Your task to perform on an android device: find which apps use the phone's location Image 0: 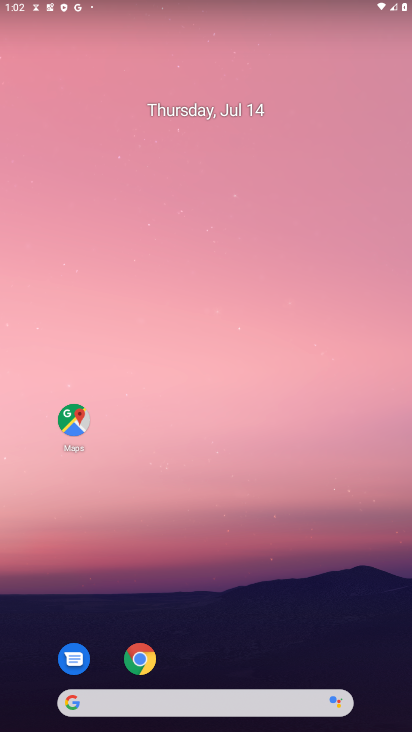
Step 0: drag from (22, 715) to (122, 330)
Your task to perform on an android device: find which apps use the phone's location Image 1: 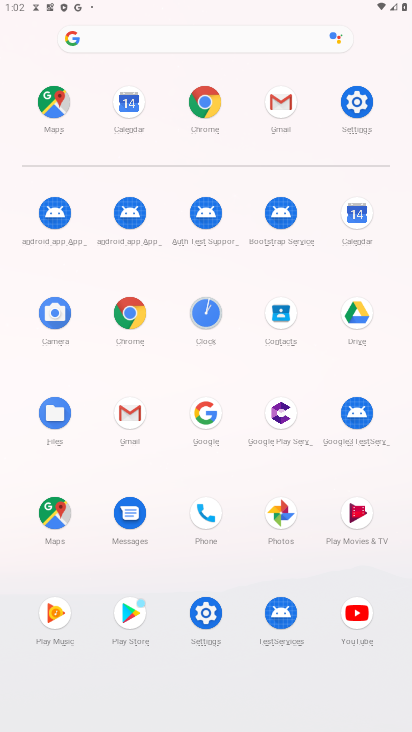
Step 1: click (210, 615)
Your task to perform on an android device: find which apps use the phone's location Image 2: 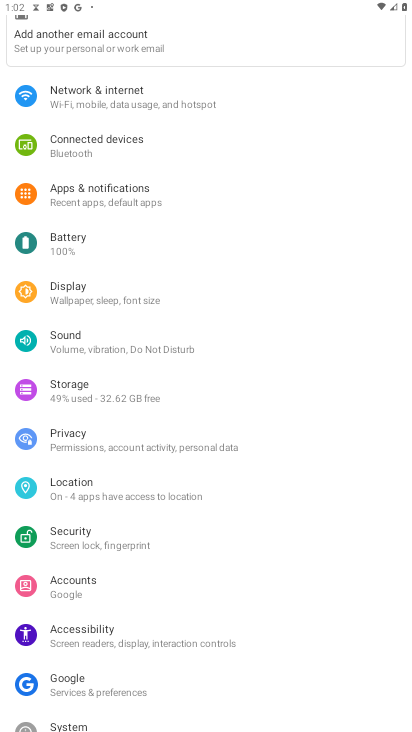
Step 2: click (93, 492)
Your task to perform on an android device: find which apps use the phone's location Image 3: 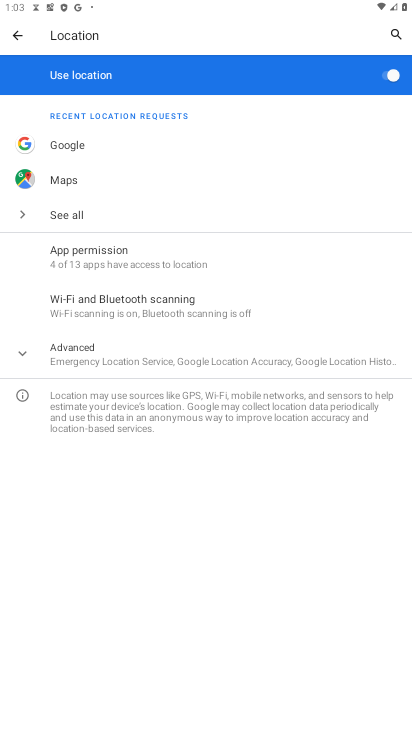
Step 3: click (75, 209)
Your task to perform on an android device: find which apps use the phone's location Image 4: 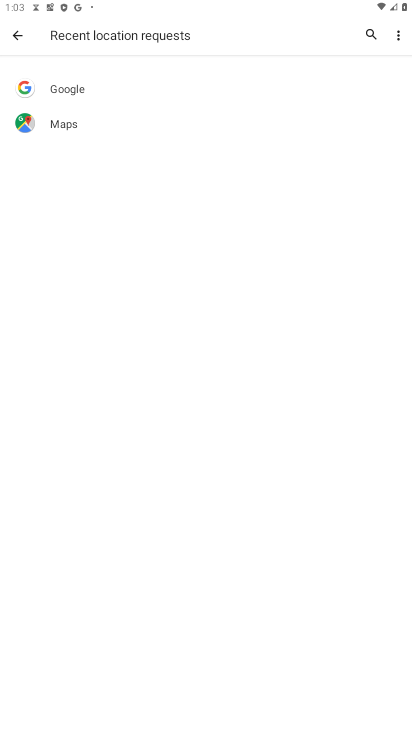
Step 4: task complete